Your task to perform on an android device: delete the emails in spam in the gmail app Image 0: 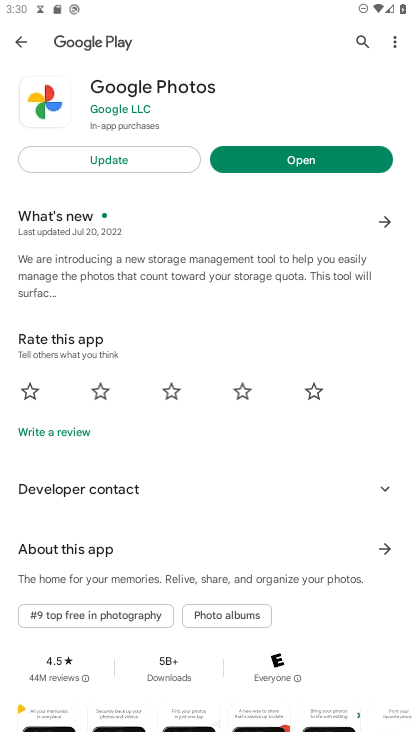
Step 0: press home button
Your task to perform on an android device: delete the emails in spam in the gmail app Image 1: 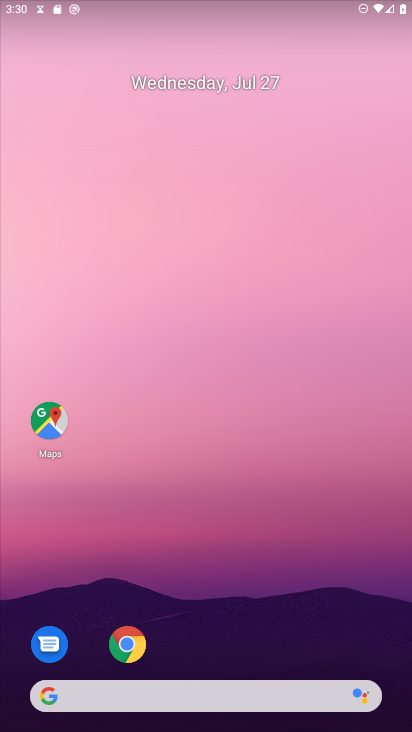
Step 1: drag from (211, 553) to (225, 2)
Your task to perform on an android device: delete the emails in spam in the gmail app Image 2: 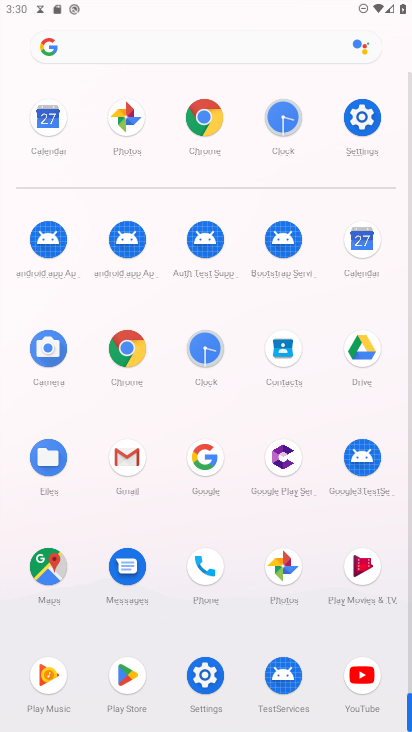
Step 2: click (132, 468)
Your task to perform on an android device: delete the emails in spam in the gmail app Image 3: 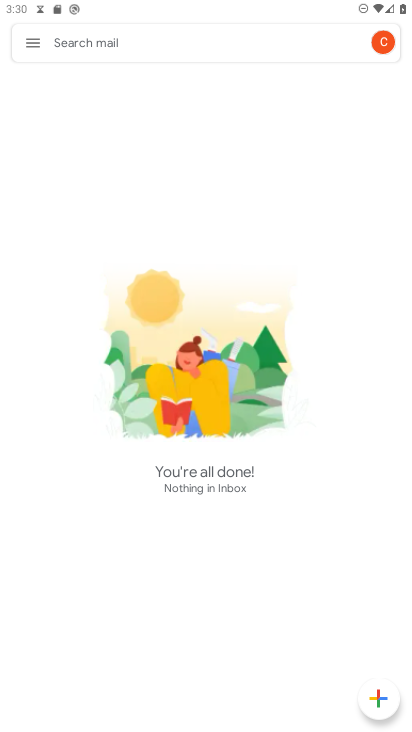
Step 3: click (35, 38)
Your task to perform on an android device: delete the emails in spam in the gmail app Image 4: 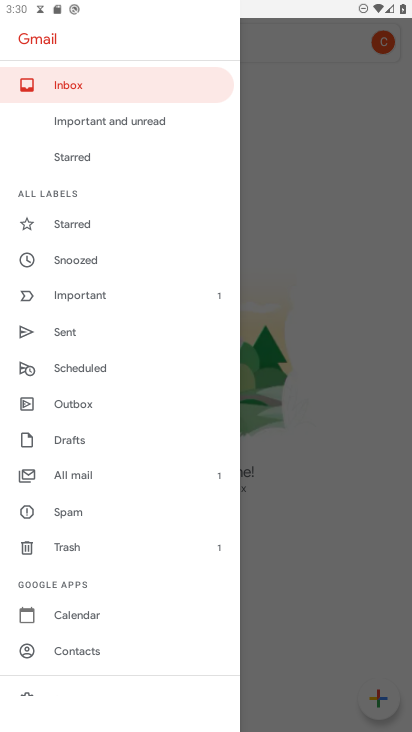
Step 4: click (67, 513)
Your task to perform on an android device: delete the emails in spam in the gmail app Image 5: 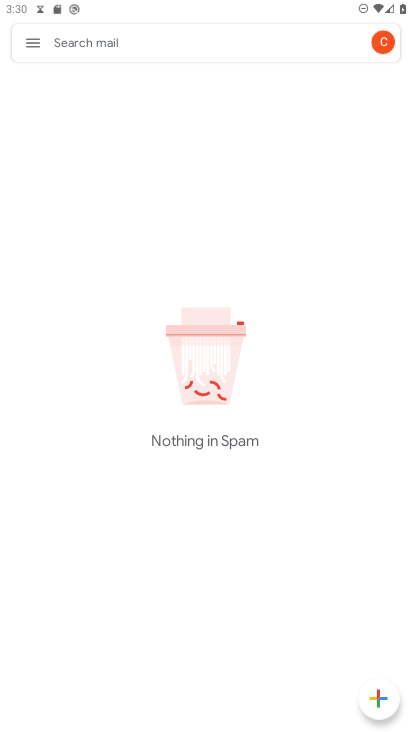
Step 5: task complete